Your task to perform on an android device: What's on my calendar tomorrow? Image 0: 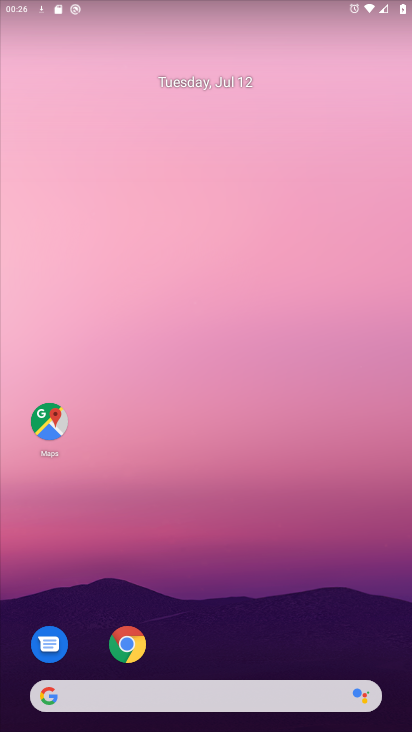
Step 0: drag from (161, 627) to (172, 152)
Your task to perform on an android device: What's on my calendar tomorrow? Image 1: 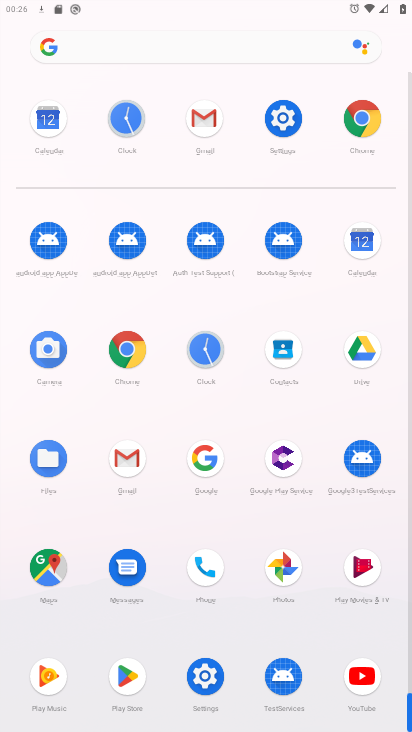
Step 1: click (364, 232)
Your task to perform on an android device: What's on my calendar tomorrow? Image 2: 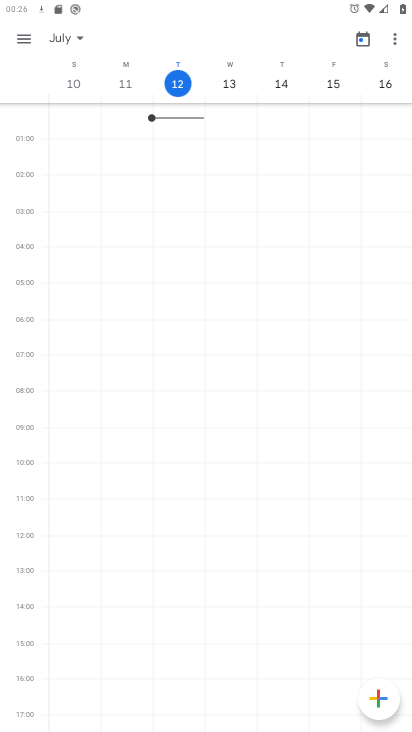
Step 2: click (220, 79)
Your task to perform on an android device: What's on my calendar tomorrow? Image 3: 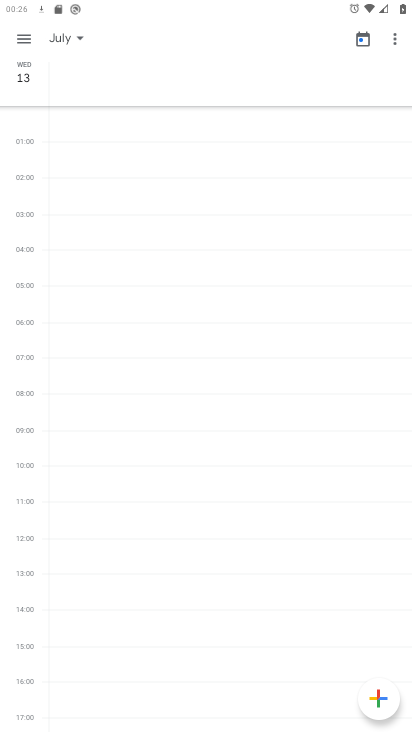
Step 3: task complete